Your task to perform on an android device: open device folders in google photos Image 0: 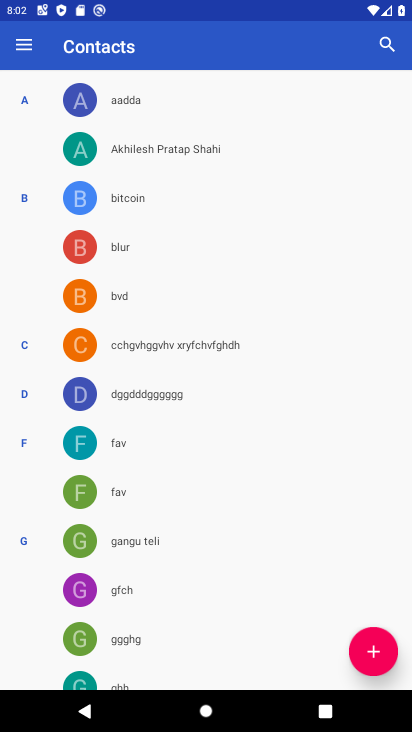
Step 0: press home button
Your task to perform on an android device: open device folders in google photos Image 1: 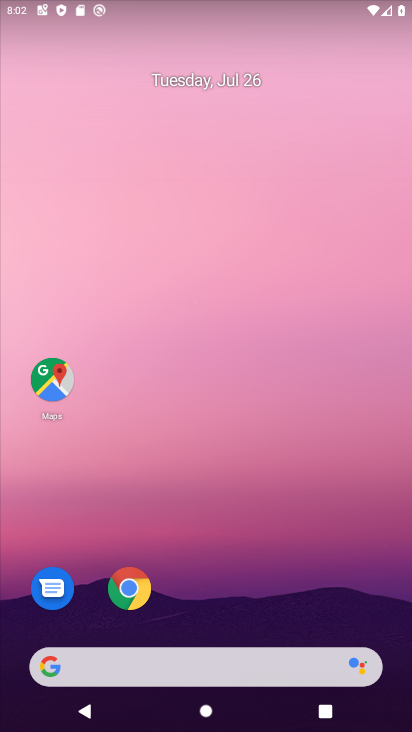
Step 1: drag from (283, 547) to (317, 180)
Your task to perform on an android device: open device folders in google photos Image 2: 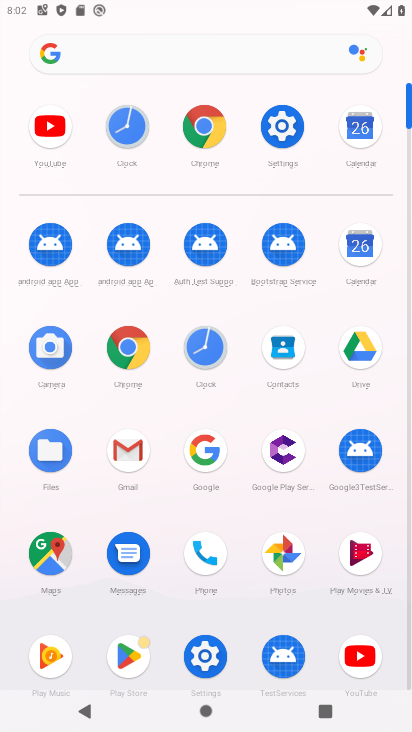
Step 2: click (293, 546)
Your task to perform on an android device: open device folders in google photos Image 3: 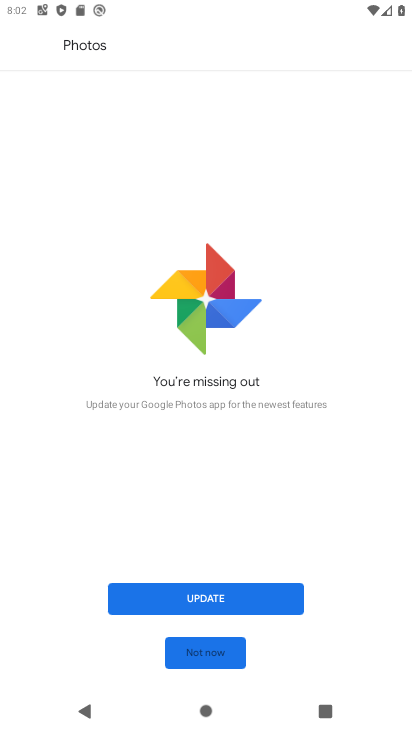
Step 3: click (207, 641)
Your task to perform on an android device: open device folders in google photos Image 4: 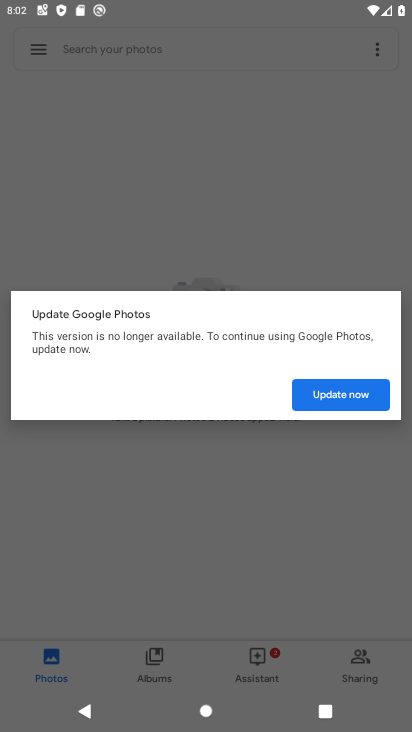
Step 4: task complete